Your task to perform on an android device: turn vacation reply on in the gmail app Image 0: 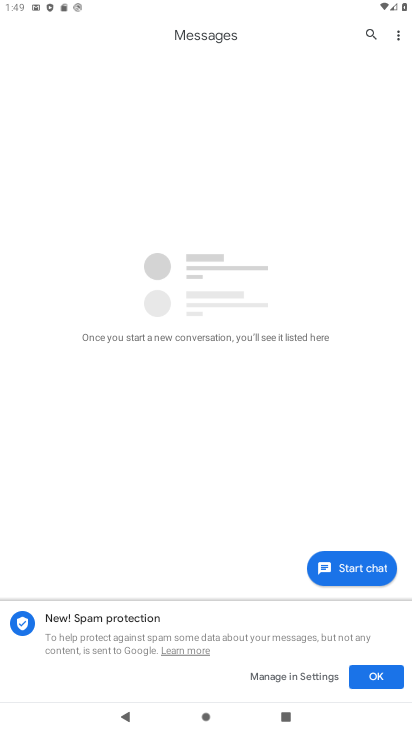
Step 0: press home button
Your task to perform on an android device: turn vacation reply on in the gmail app Image 1: 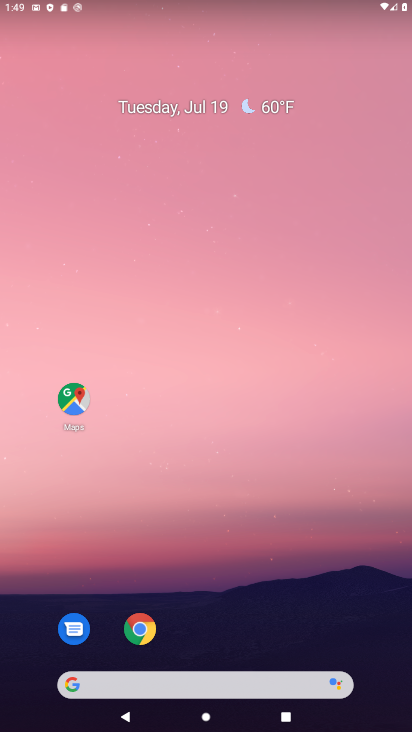
Step 1: drag from (363, 650) to (336, 219)
Your task to perform on an android device: turn vacation reply on in the gmail app Image 2: 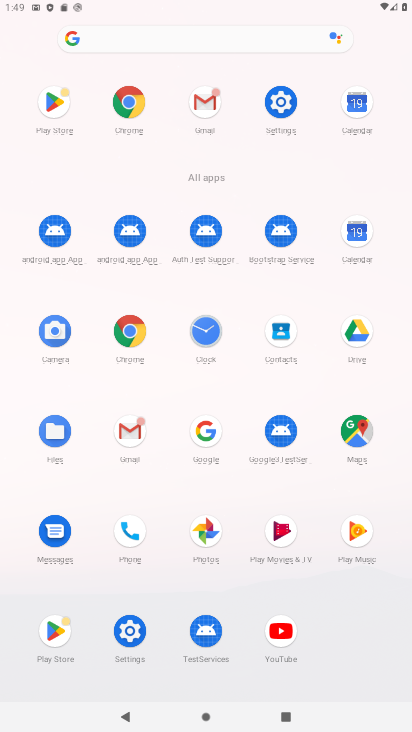
Step 2: click (128, 432)
Your task to perform on an android device: turn vacation reply on in the gmail app Image 3: 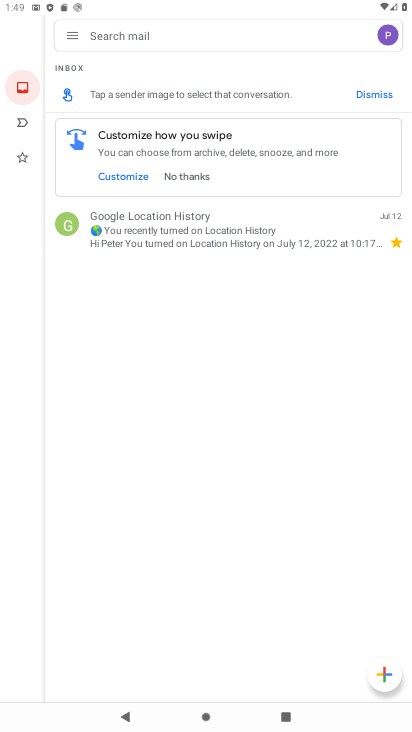
Step 3: click (70, 35)
Your task to perform on an android device: turn vacation reply on in the gmail app Image 4: 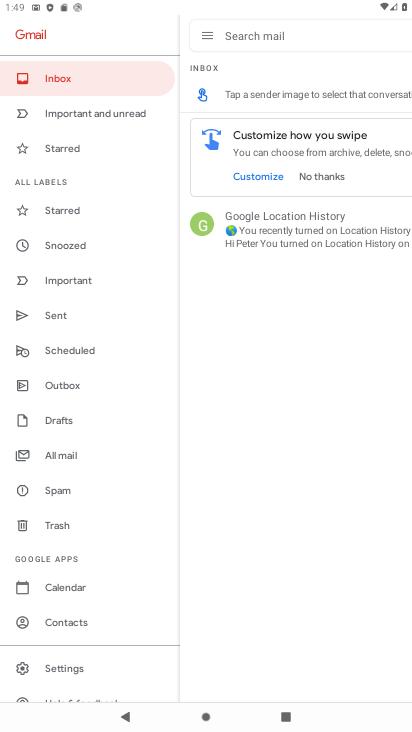
Step 4: click (62, 672)
Your task to perform on an android device: turn vacation reply on in the gmail app Image 5: 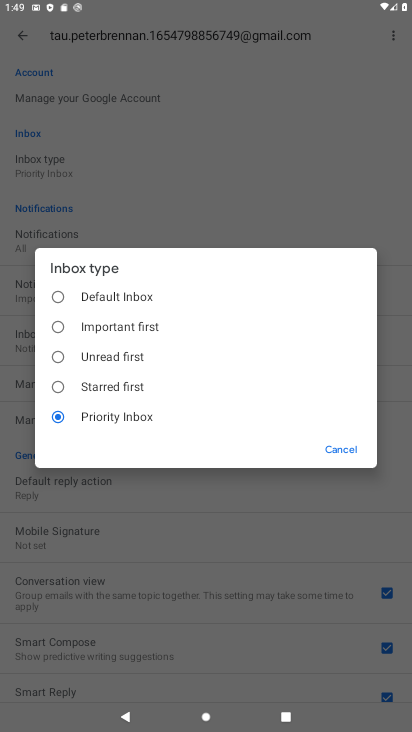
Step 5: click (349, 445)
Your task to perform on an android device: turn vacation reply on in the gmail app Image 6: 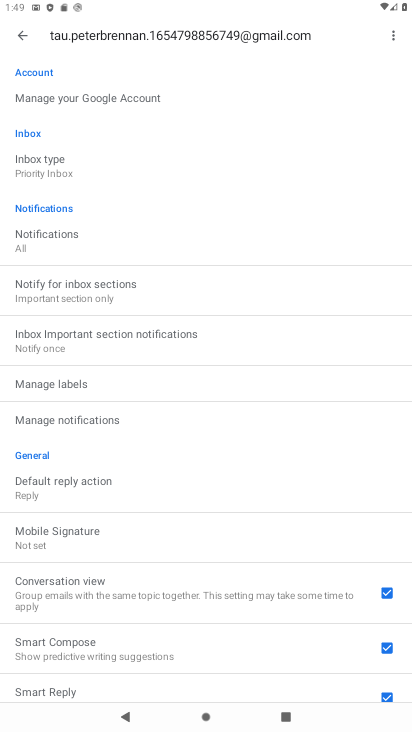
Step 6: drag from (199, 549) to (169, 70)
Your task to perform on an android device: turn vacation reply on in the gmail app Image 7: 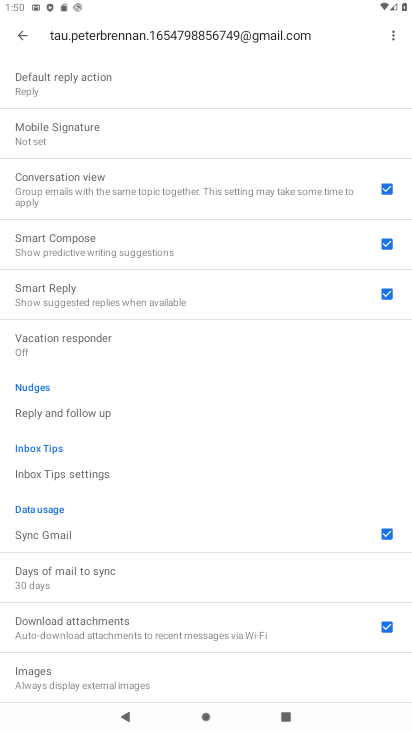
Step 7: click (105, 335)
Your task to perform on an android device: turn vacation reply on in the gmail app Image 8: 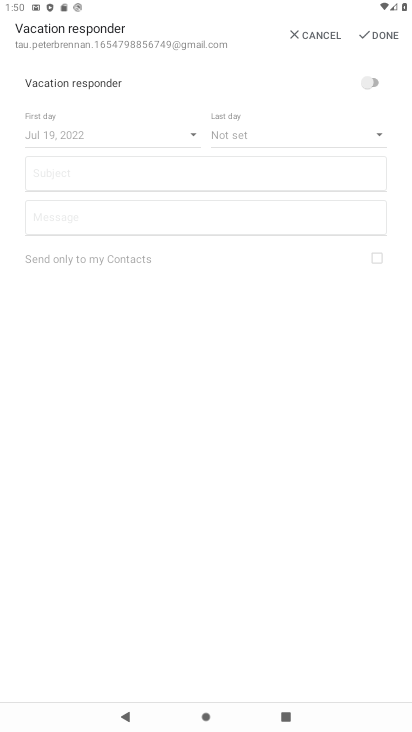
Step 8: click (376, 82)
Your task to perform on an android device: turn vacation reply on in the gmail app Image 9: 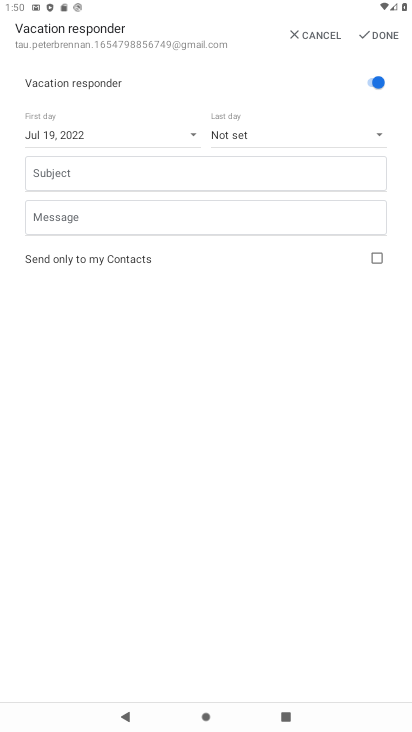
Step 9: click (378, 31)
Your task to perform on an android device: turn vacation reply on in the gmail app Image 10: 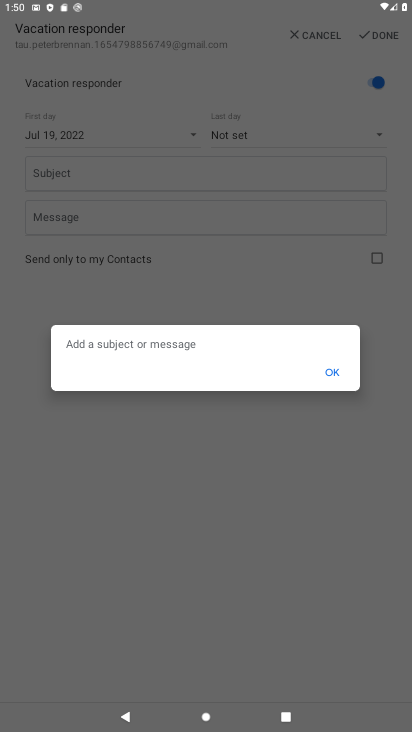
Step 10: click (328, 376)
Your task to perform on an android device: turn vacation reply on in the gmail app Image 11: 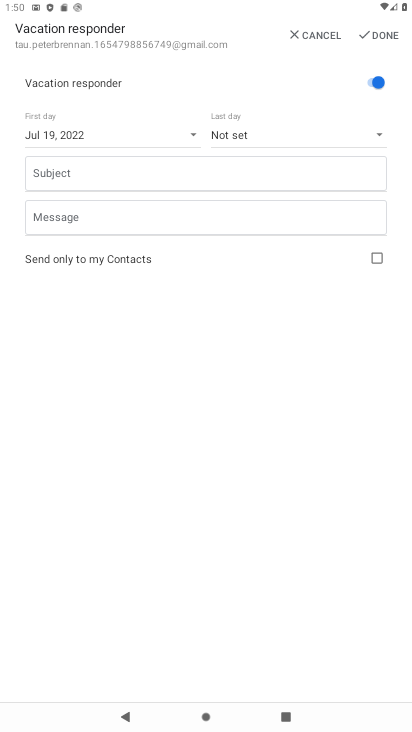
Step 11: task complete